Your task to perform on an android device: Open settings Image 0: 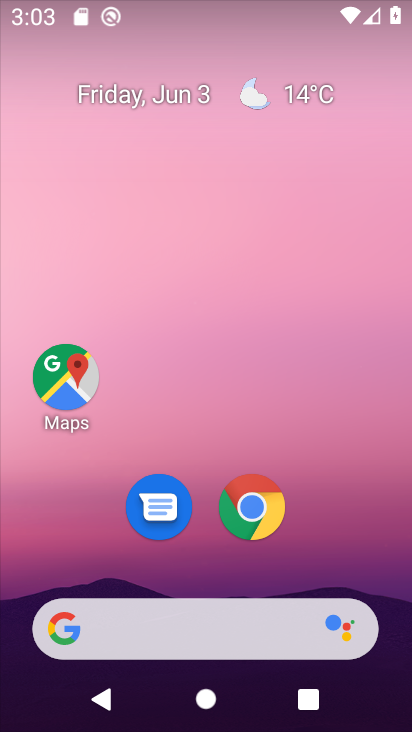
Step 0: drag from (210, 449) to (242, 183)
Your task to perform on an android device: Open settings Image 1: 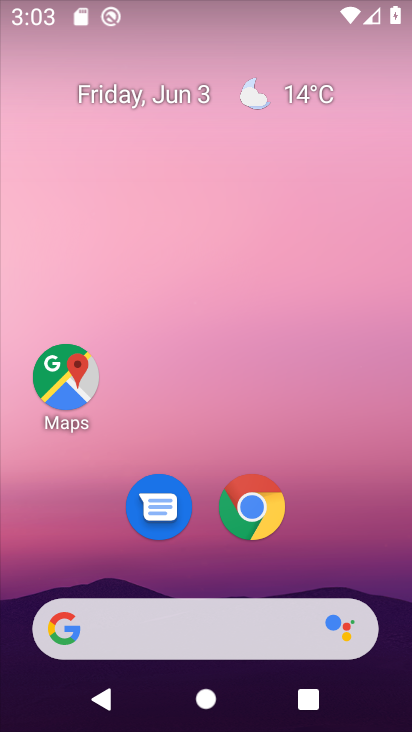
Step 1: drag from (238, 583) to (296, 226)
Your task to perform on an android device: Open settings Image 2: 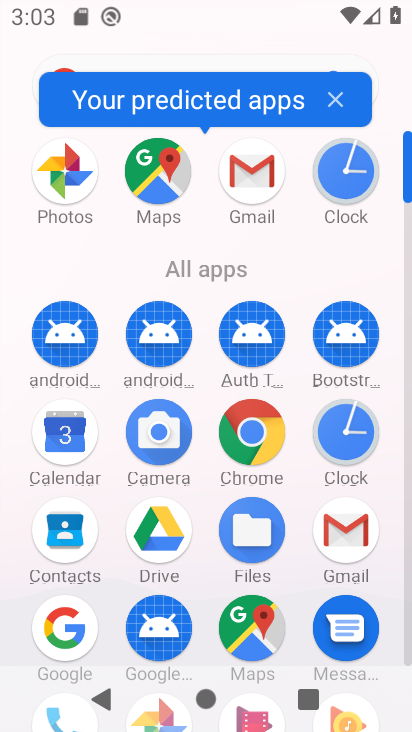
Step 2: drag from (200, 559) to (271, 243)
Your task to perform on an android device: Open settings Image 3: 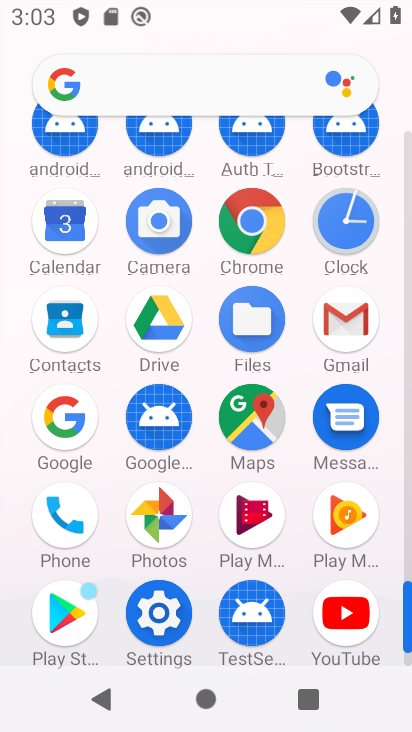
Step 3: click (153, 620)
Your task to perform on an android device: Open settings Image 4: 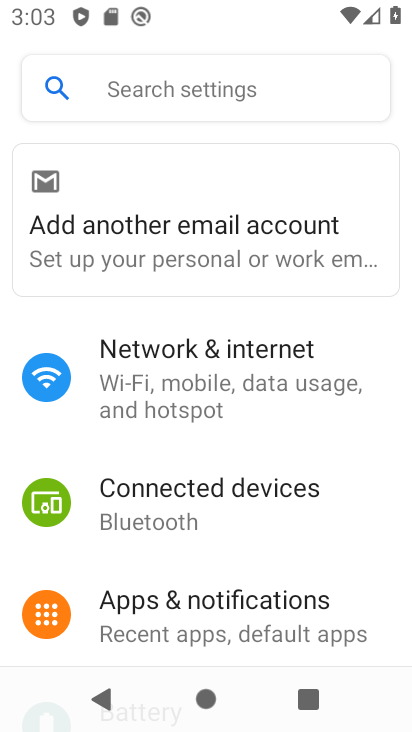
Step 4: task complete